Your task to perform on an android device: Go to Reddit.com Image 0: 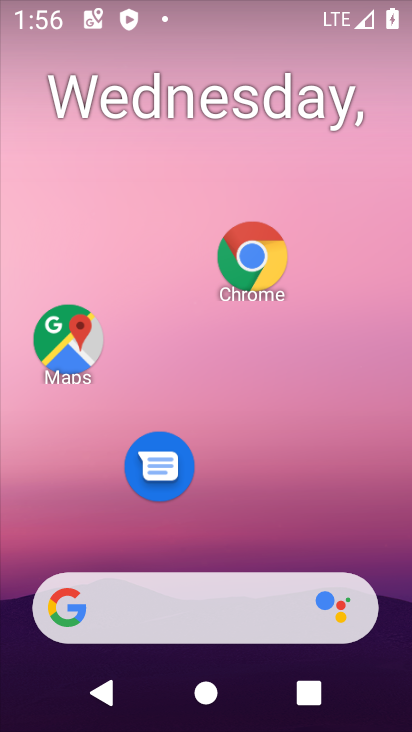
Step 0: drag from (291, 436) to (301, 91)
Your task to perform on an android device: Go to Reddit.com Image 1: 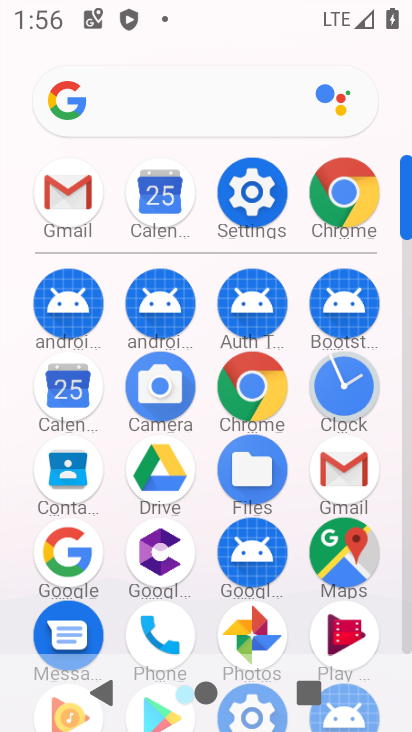
Step 1: click (253, 380)
Your task to perform on an android device: Go to Reddit.com Image 2: 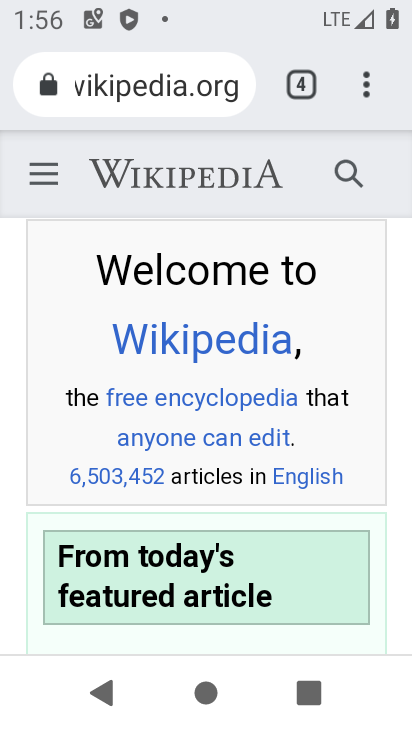
Step 2: click (142, 74)
Your task to perform on an android device: Go to Reddit.com Image 3: 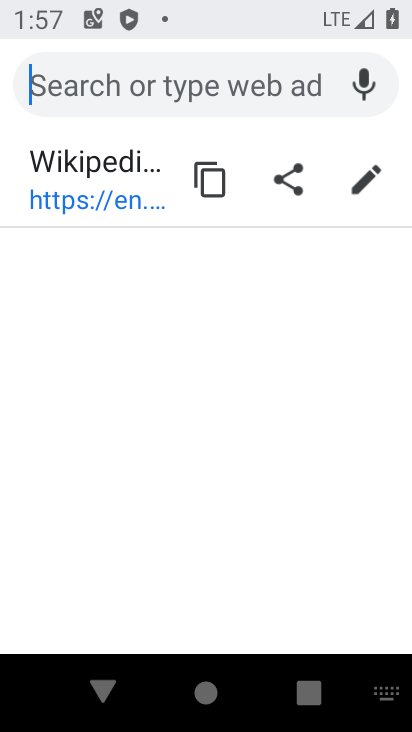
Step 3: type " Reddit.com"
Your task to perform on an android device: Go to Reddit.com Image 4: 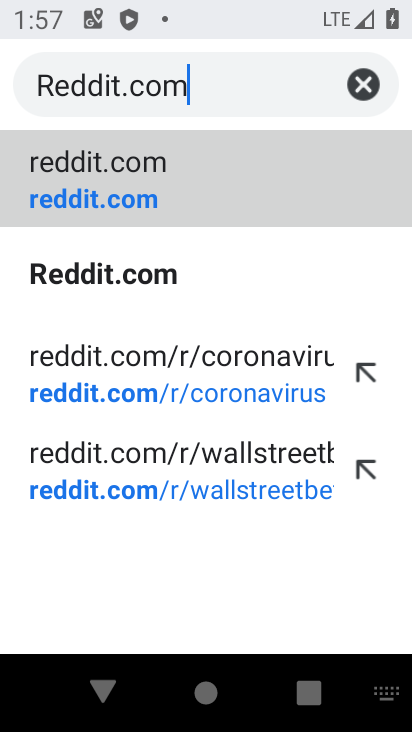
Step 4: click (85, 206)
Your task to perform on an android device: Go to Reddit.com Image 5: 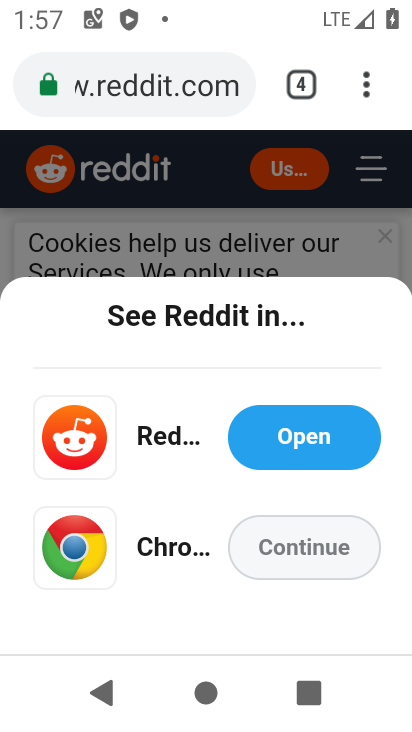
Step 5: task complete